Your task to perform on an android device: Open battery settings Image 0: 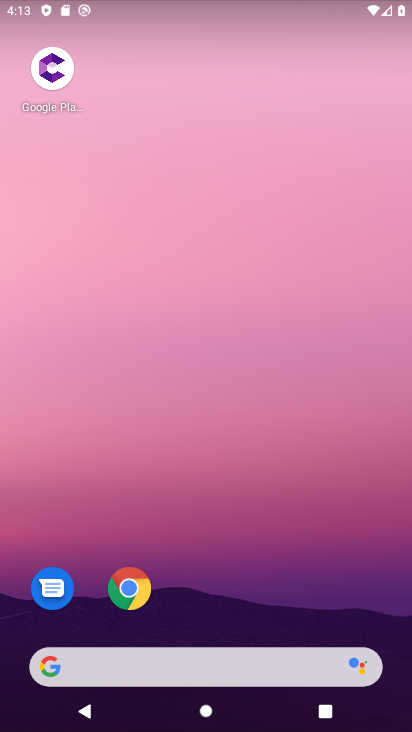
Step 0: drag from (238, 548) to (212, 98)
Your task to perform on an android device: Open battery settings Image 1: 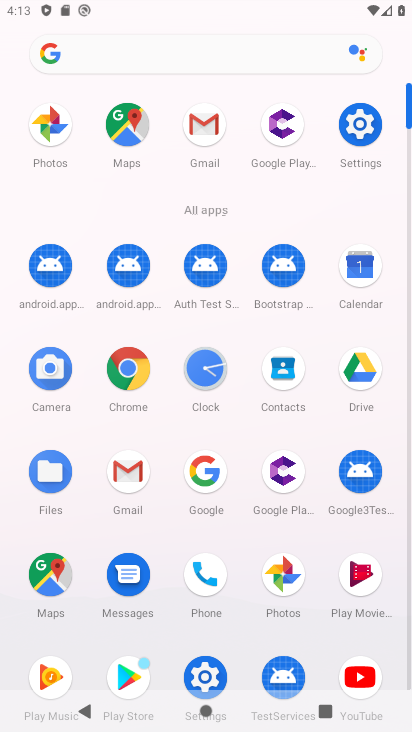
Step 1: click (361, 121)
Your task to perform on an android device: Open battery settings Image 2: 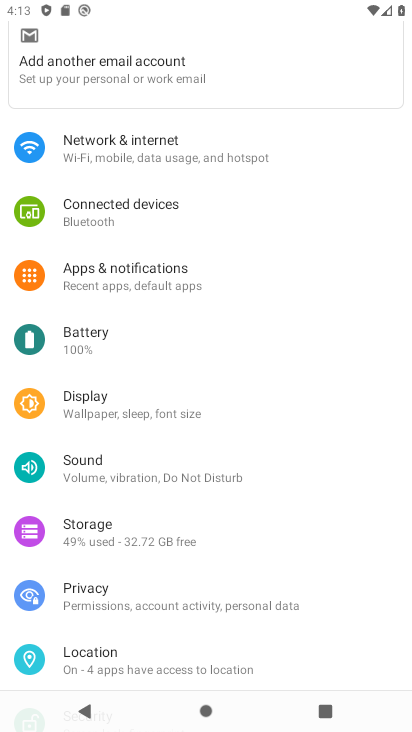
Step 2: click (95, 334)
Your task to perform on an android device: Open battery settings Image 3: 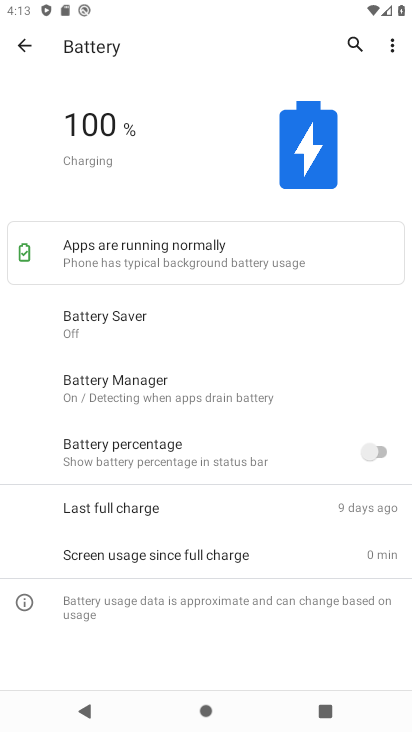
Step 3: task complete